Your task to perform on an android device: Do I have any events tomorrow? Image 0: 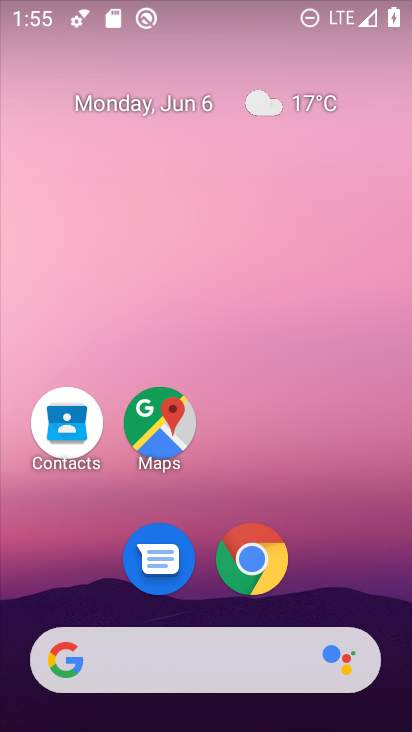
Step 0: drag from (270, 572) to (276, 103)
Your task to perform on an android device: Do I have any events tomorrow? Image 1: 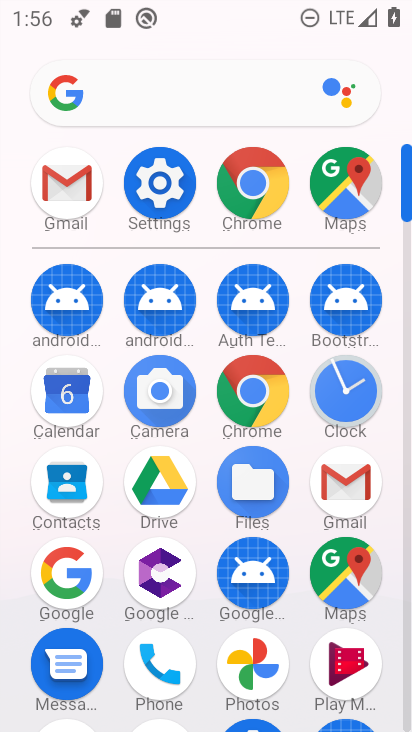
Step 1: drag from (234, 510) to (215, 247)
Your task to perform on an android device: Do I have any events tomorrow? Image 2: 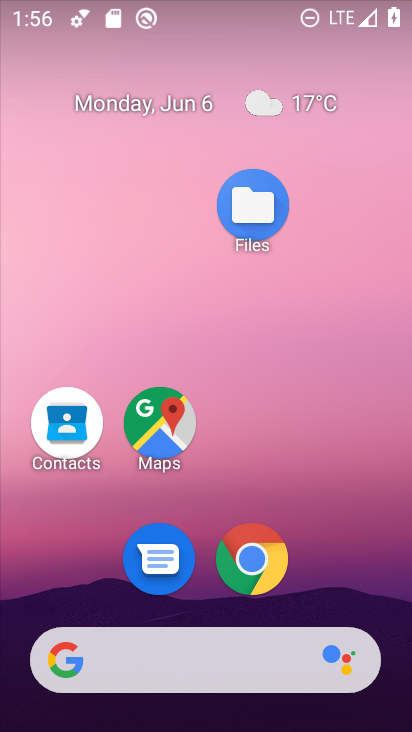
Step 2: drag from (205, 514) to (245, 2)
Your task to perform on an android device: Do I have any events tomorrow? Image 3: 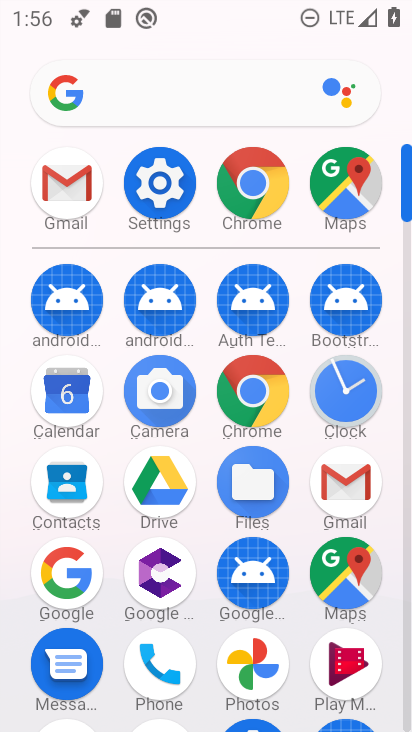
Step 3: click (79, 427)
Your task to perform on an android device: Do I have any events tomorrow? Image 4: 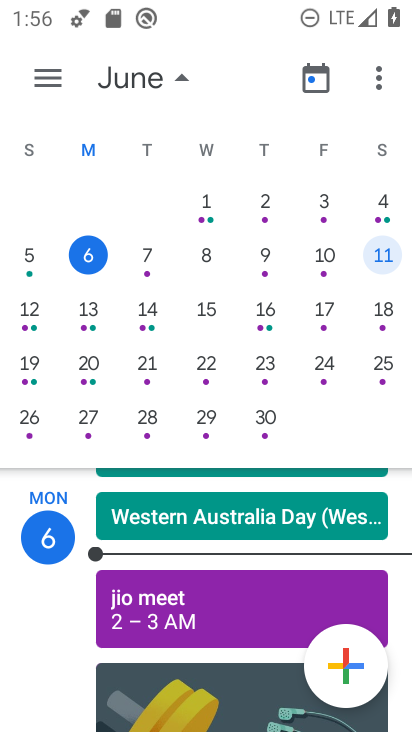
Step 4: click (144, 263)
Your task to perform on an android device: Do I have any events tomorrow? Image 5: 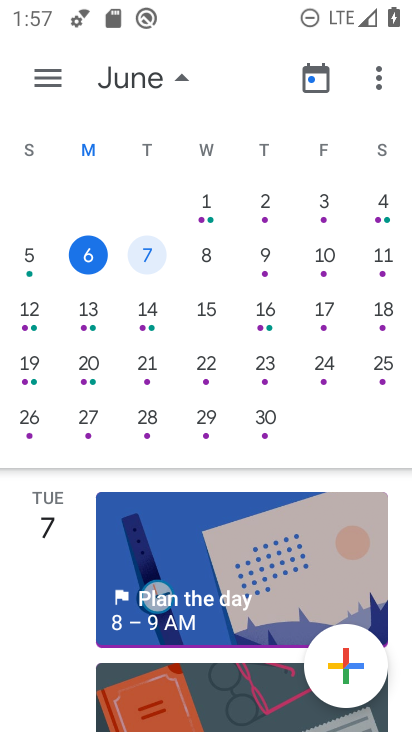
Step 5: task complete